Your task to perform on an android device: When is my next appointment? Image 0: 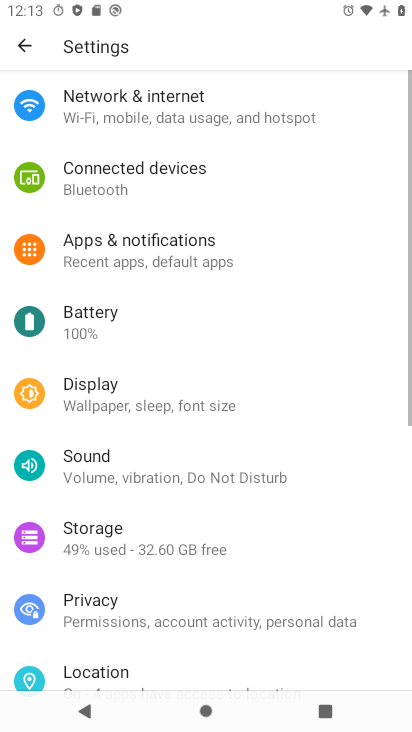
Step 0: press home button
Your task to perform on an android device: When is my next appointment? Image 1: 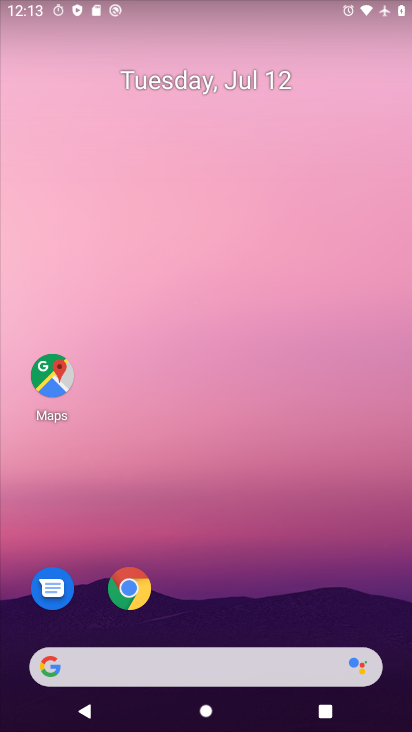
Step 1: drag from (172, 670) to (197, 254)
Your task to perform on an android device: When is my next appointment? Image 2: 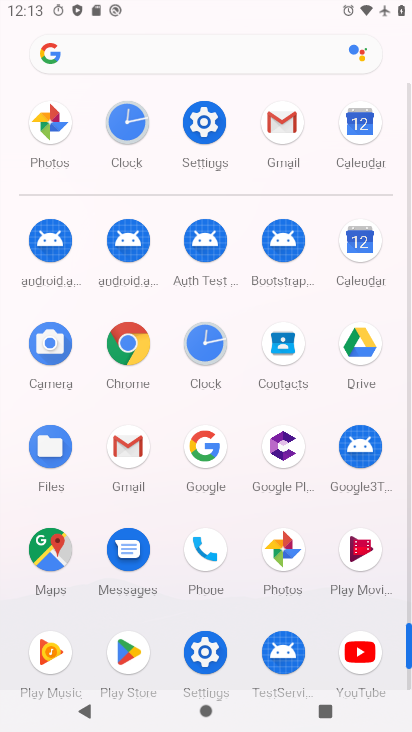
Step 2: click (359, 249)
Your task to perform on an android device: When is my next appointment? Image 3: 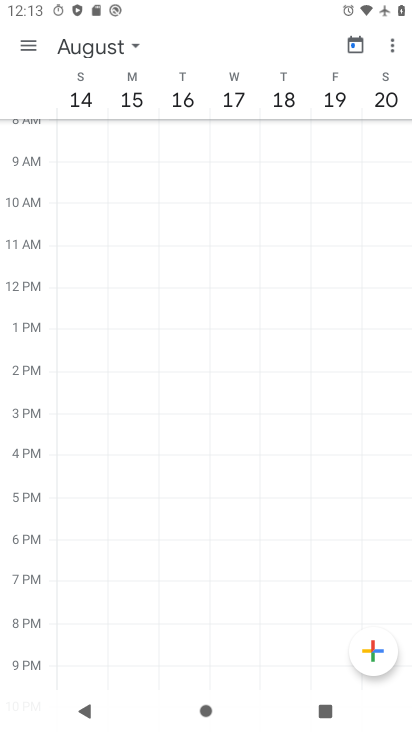
Step 3: click (79, 39)
Your task to perform on an android device: When is my next appointment? Image 4: 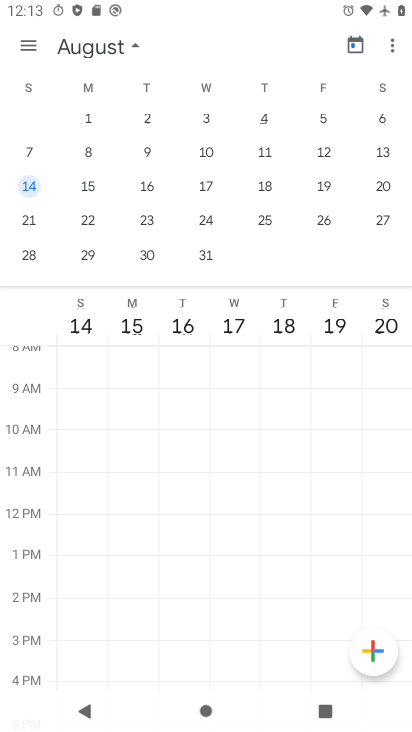
Step 4: drag from (116, 200) to (411, 226)
Your task to perform on an android device: When is my next appointment? Image 5: 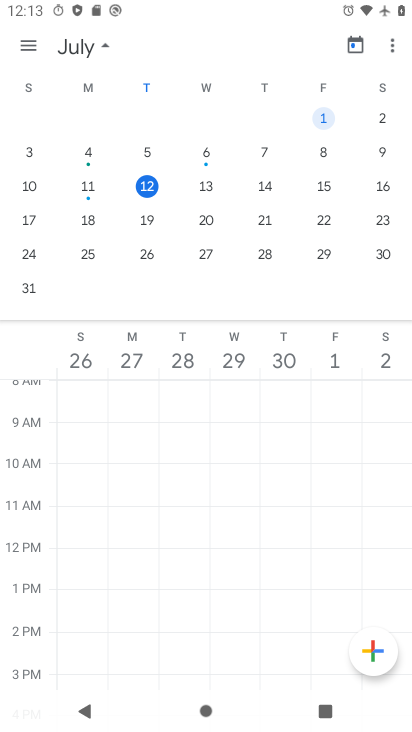
Step 5: click (155, 184)
Your task to perform on an android device: When is my next appointment? Image 6: 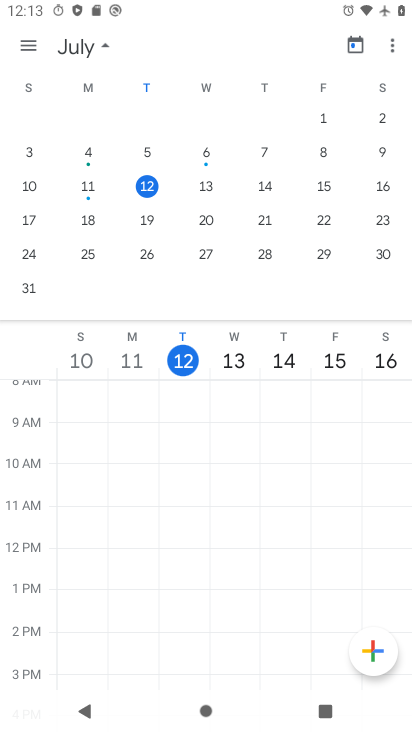
Step 6: click (32, 43)
Your task to perform on an android device: When is my next appointment? Image 7: 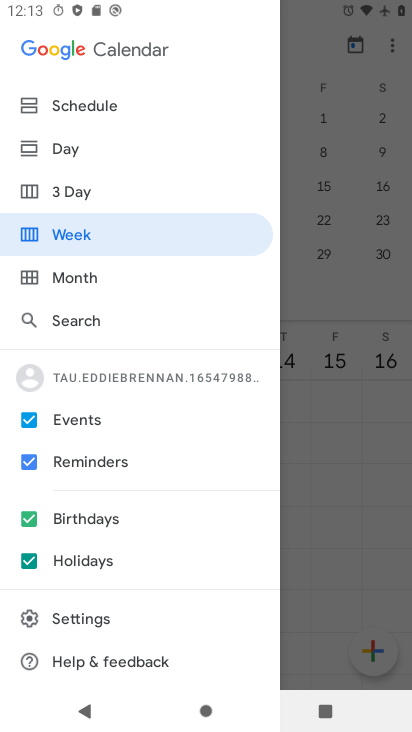
Step 7: click (77, 98)
Your task to perform on an android device: When is my next appointment? Image 8: 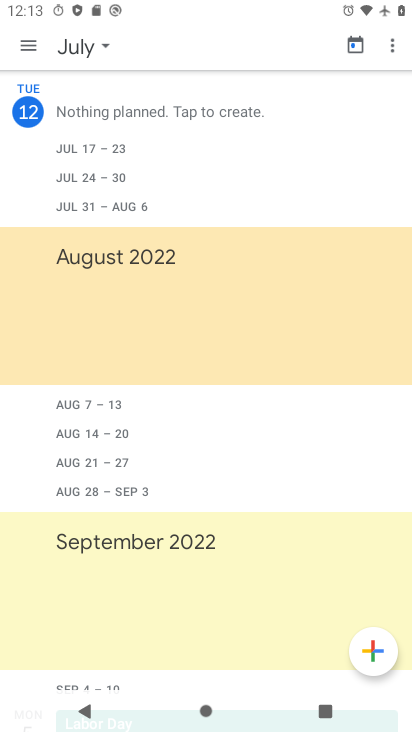
Step 8: task complete